Your task to perform on an android device: open chrome privacy settings Image 0: 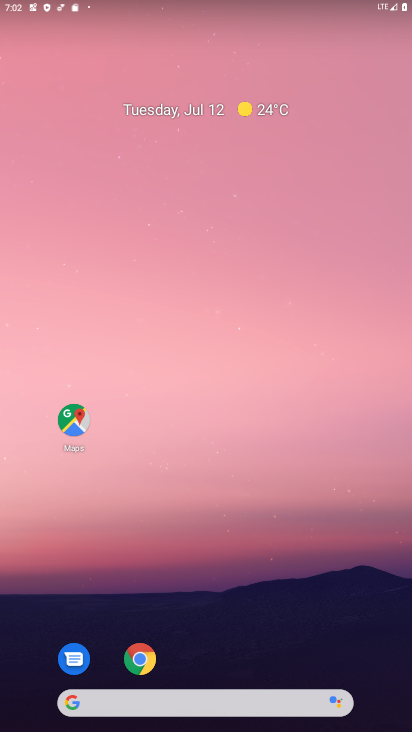
Step 0: drag from (363, 683) to (229, 0)
Your task to perform on an android device: open chrome privacy settings Image 1: 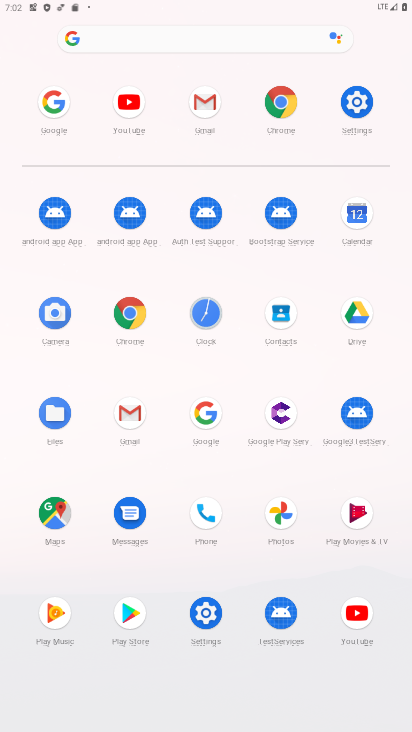
Step 1: click (123, 298)
Your task to perform on an android device: open chrome privacy settings Image 2: 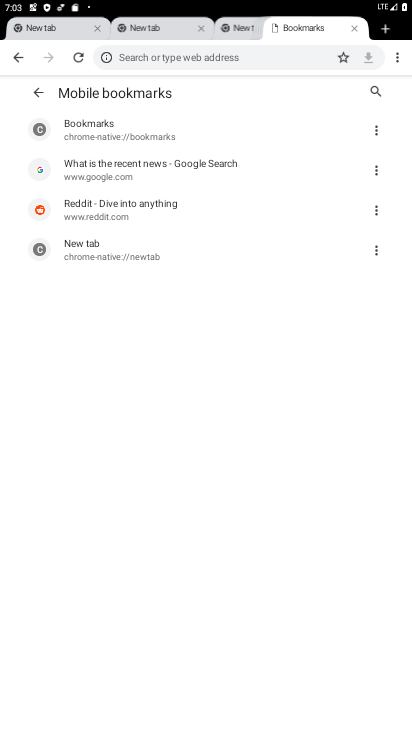
Step 2: click (397, 56)
Your task to perform on an android device: open chrome privacy settings Image 3: 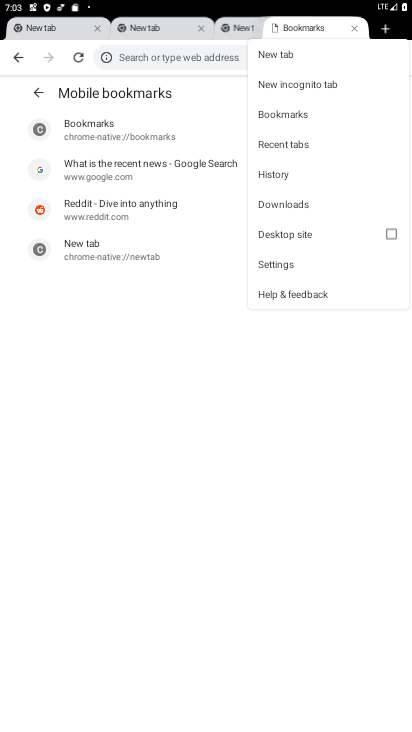
Step 3: click (286, 256)
Your task to perform on an android device: open chrome privacy settings Image 4: 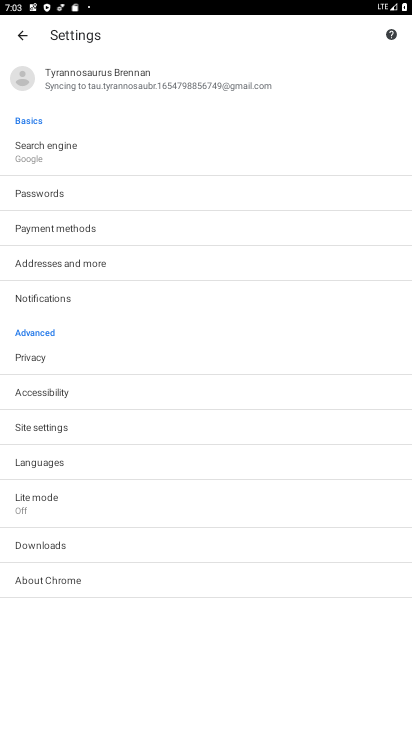
Step 4: click (93, 364)
Your task to perform on an android device: open chrome privacy settings Image 5: 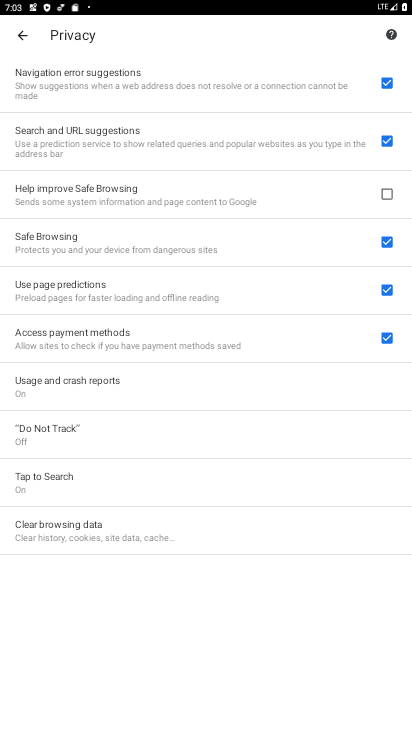
Step 5: task complete